Your task to perform on an android device: Do I have any events today? Image 0: 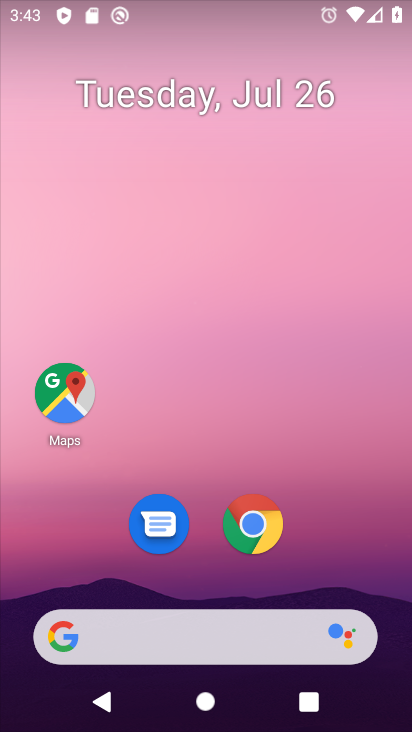
Step 0: drag from (312, 507) to (270, 220)
Your task to perform on an android device: Do I have any events today? Image 1: 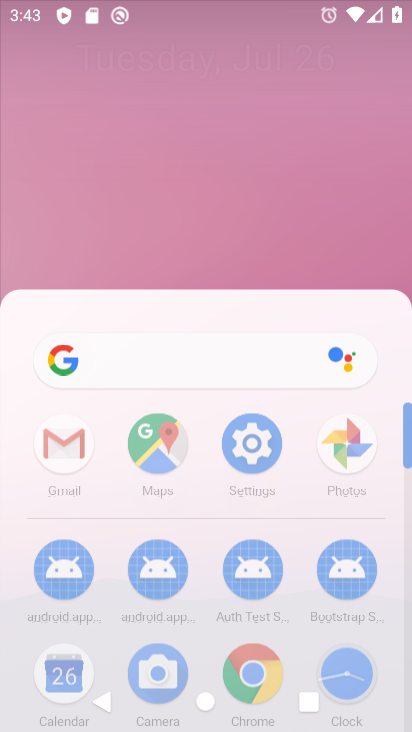
Step 1: click (254, 73)
Your task to perform on an android device: Do I have any events today? Image 2: 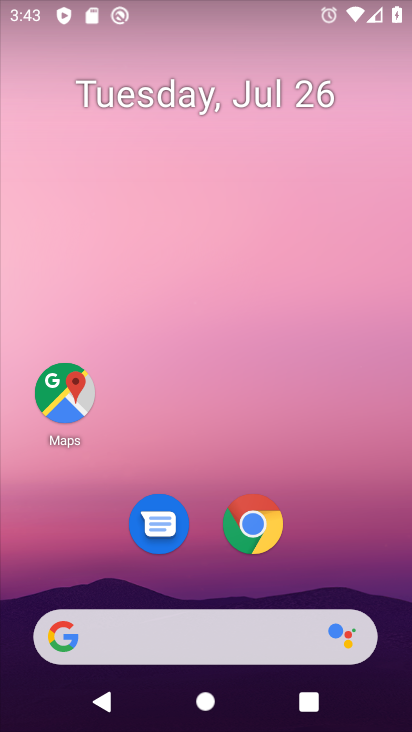
Step 2: drag from (330, 529) to (246, 49)
Your task to perform on an android device: Do I have any events today? Image 3: 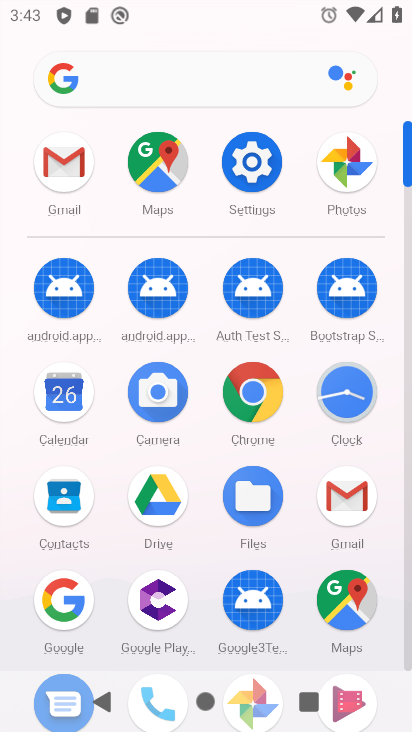
Step 3: click (248, 171)
Your task to perform on an android device: Do I have any events today? Image 4: 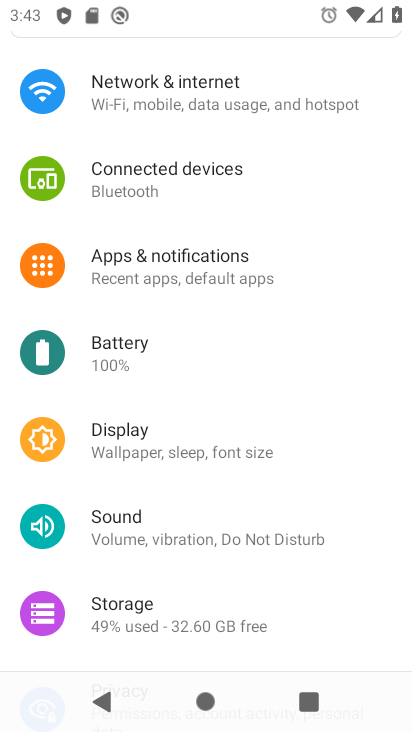
Step 4: press home button
Your task to perform on an android device: Do I have any events today? Image 5: 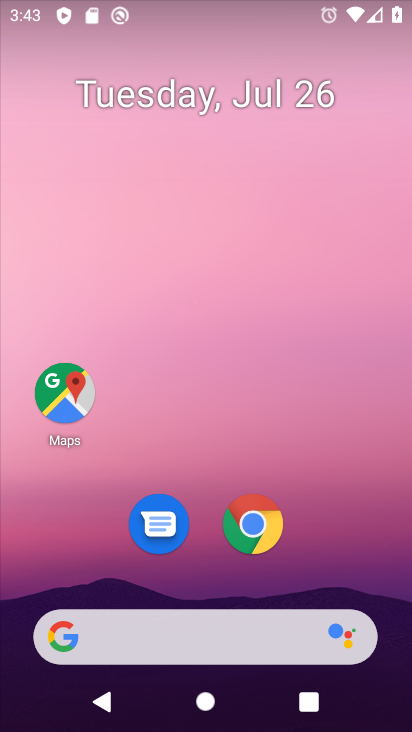
Step 5: drag from (347, 555) to (324, 31)
Your task to perform on an android device: Do I have any events today? Image 6: 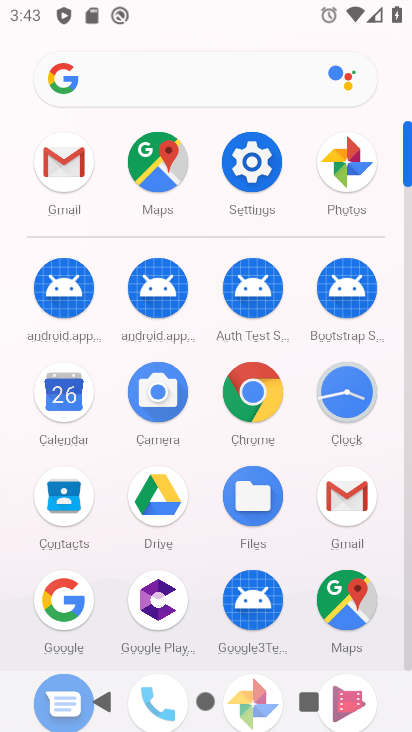
Step 6: click (66, 384)
Your task to perform on an android device: Do I have any events today? Image 7: 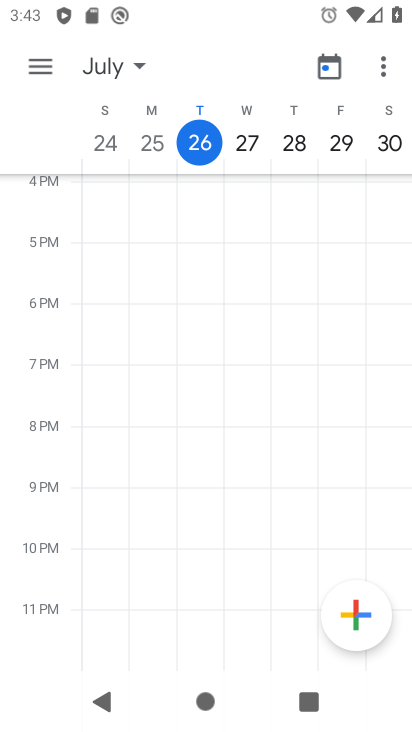
Step 7: task complete